Your task to perform on an android device: Find coffee shops on Maps Image 0: 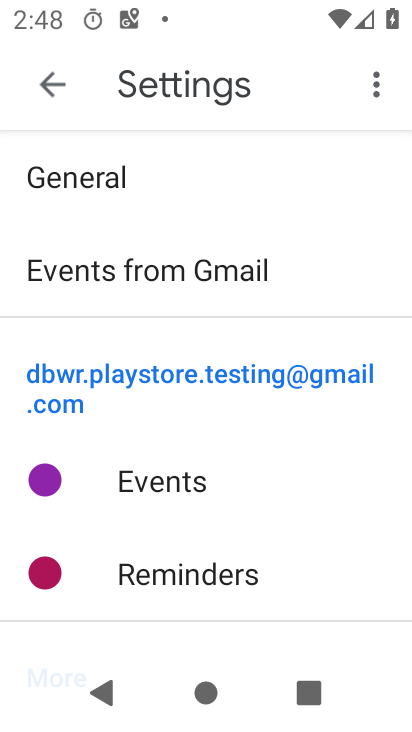
Step 0: press home button
Your task to perform on an android device: Find coffee shops on Maps Image 1: 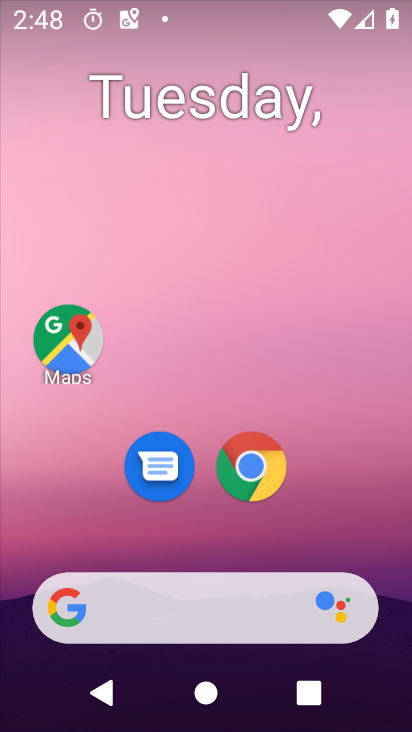
Step 1: drag from (366, 534) to (350, 108)
Your task to perform on an android device: Find coffee shops on Maps Image 2: 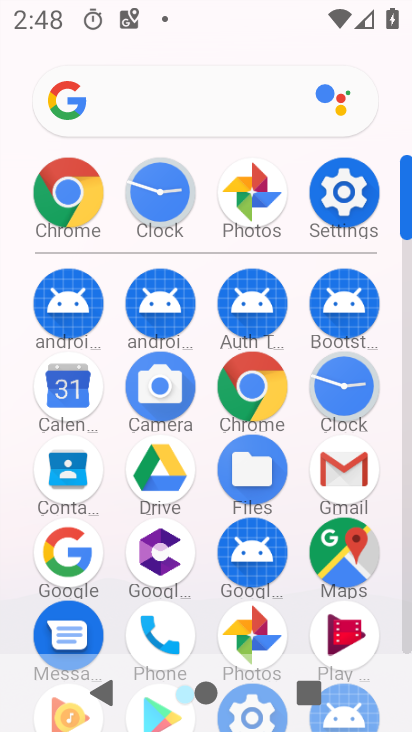
Step 2: click (361, 560)
Your task to perform on an android device: Find coffee shops on Maps Image 3: 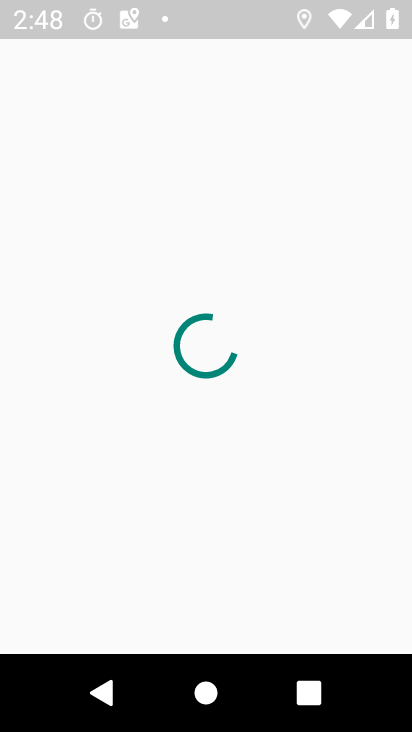
Step 3: click (282, 100)
Your task to perform on an android device: Find coffee shops on Maps Image 4: 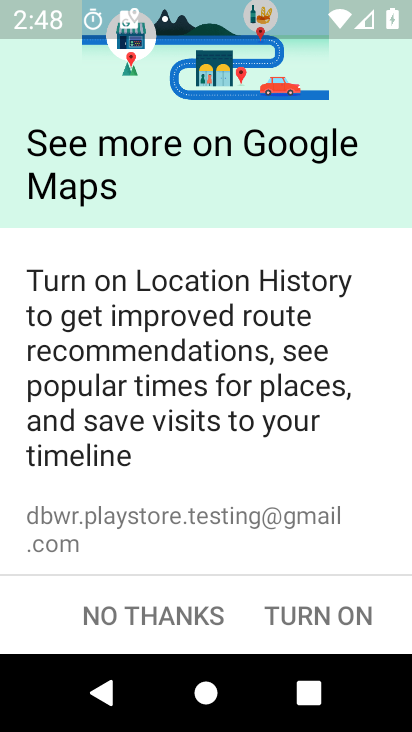
Step 4: click (173, 621)
Your task to perform on an android device: Find coffee shops on Maps Image 5: 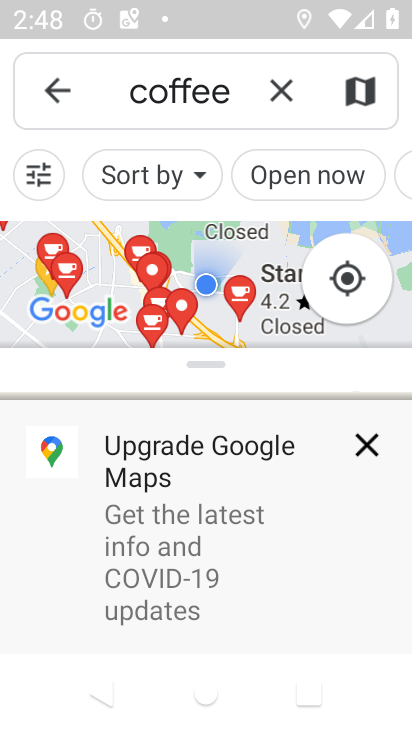
Step 5: click (287, 95)
Your task to perform on an android device: Find coffee shops on Maps Image 6: 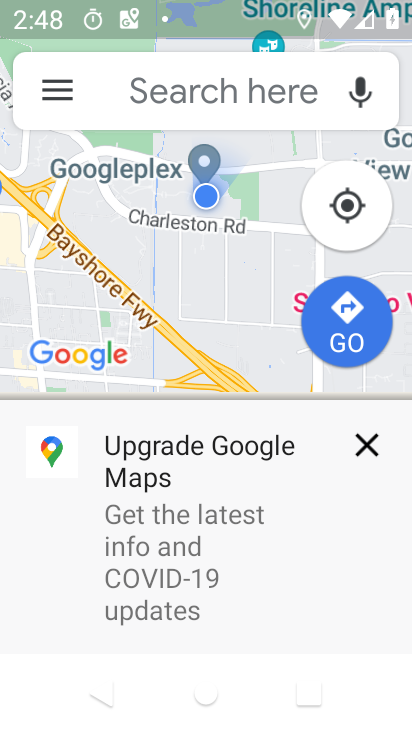
Step 6: type "coffee"
Your task to perform on an android device: Find coffee shops on Maps Image 7: 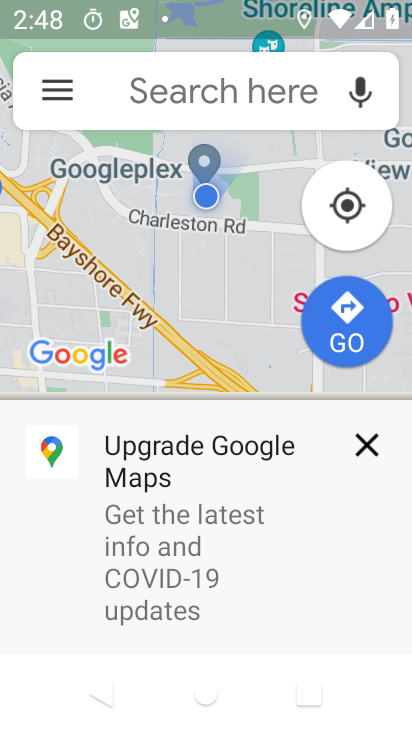
Step 7: click (212, 101)
Your task to perform on an android device: Find coffee shops on Maps Image 8: 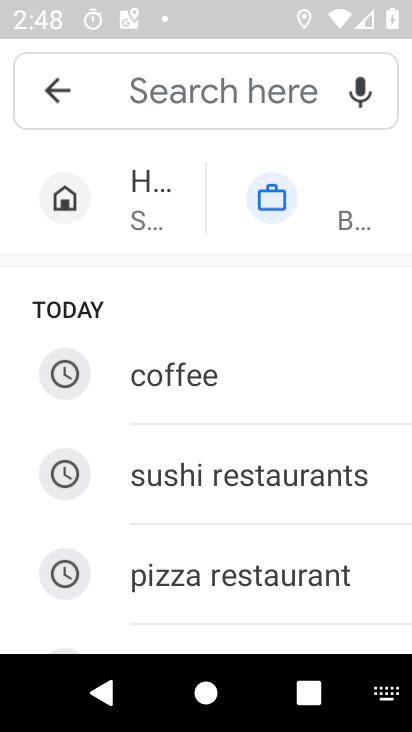
Step 8: type "coffee"
Your task to perform on an android device: Find coffee shops on Maps Image 9: 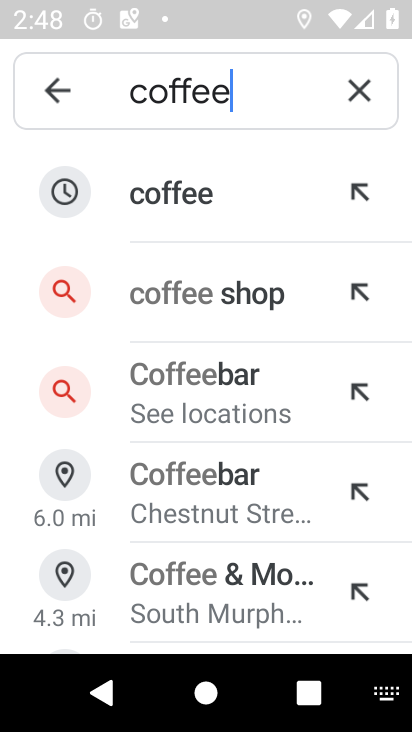
Step 9: click (278, 226)
Your task to perform on an android device: Find coffee shops on Maps Image 10: 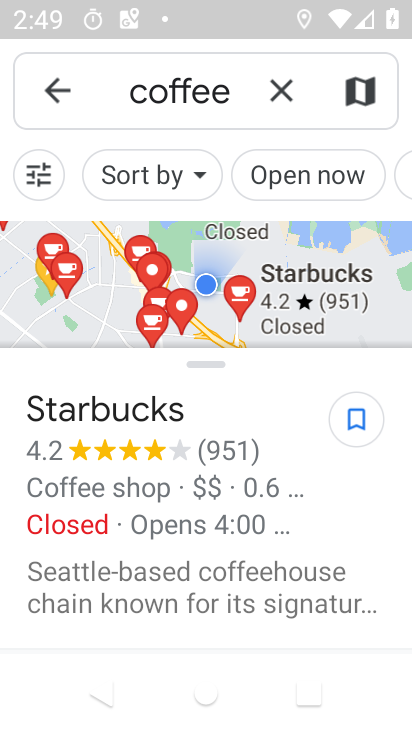
Step 10: task complete